Your task to perform on an android device: Set the phone to "Do not disturb". Image 0: 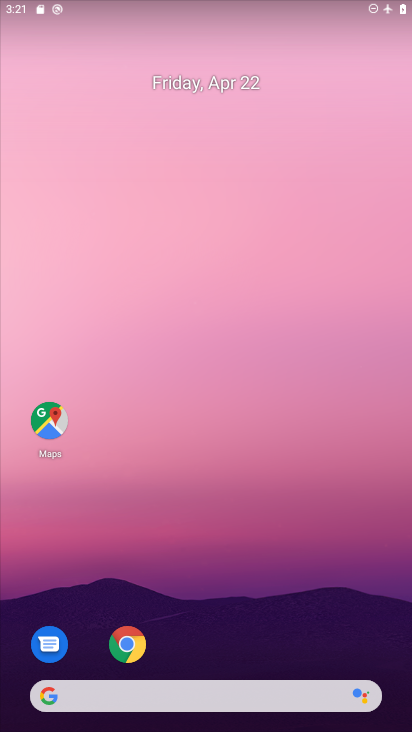
Step 0: drag from (144, 0) to (271, 614)
Your task to perform on an android device: Set the phone to "Do not disturb". Image 1: 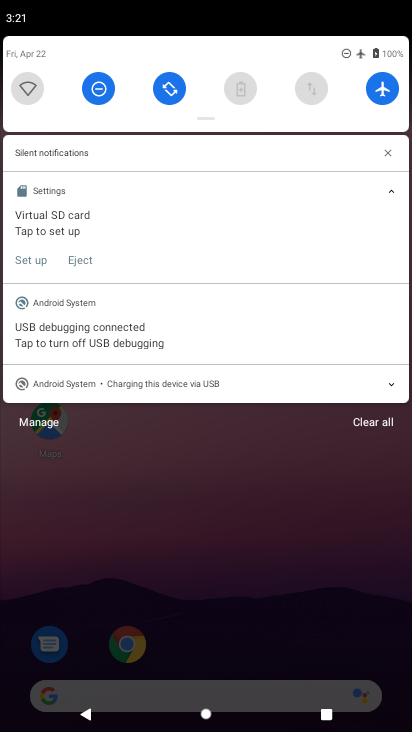
Step 1: task complete